Your task to perform on an android device: What's the weather today? Image 0: 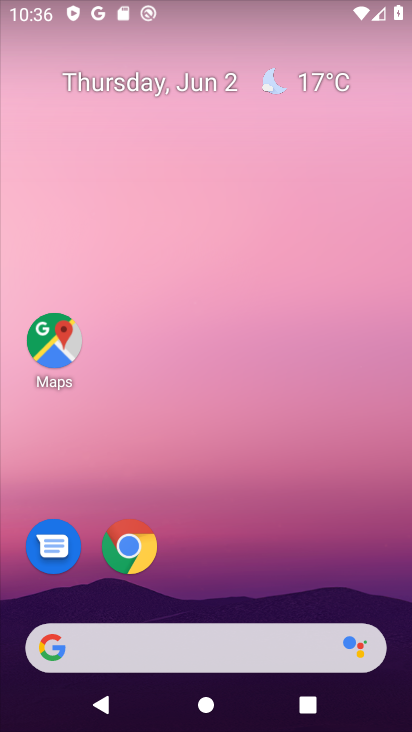
Step 0: drag from (233, 512) to (150, 31)
Your task to perform on an android device: What's the weather today? Image 1: 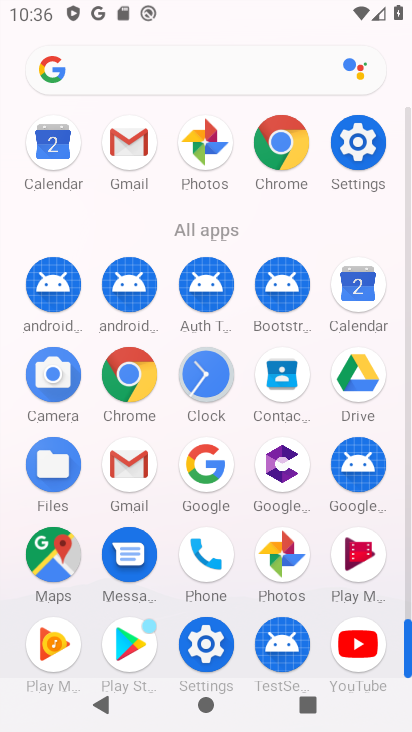
Step 1: click (279, 139)
Your task to perform on an android device: What's the weather today? Image 2: 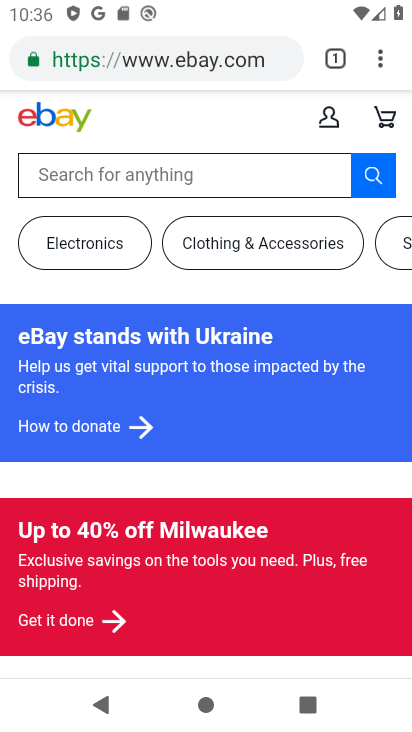
Step 2: click (218, 56)
Your task to perform on an android device: What's the weather today? Image 3: 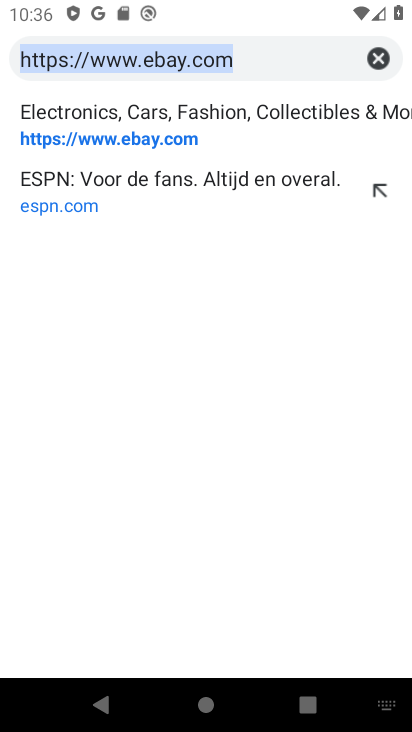
Step 3: click (373, 57)
Your task to perform on an android device: What's the weather today? Image 4: 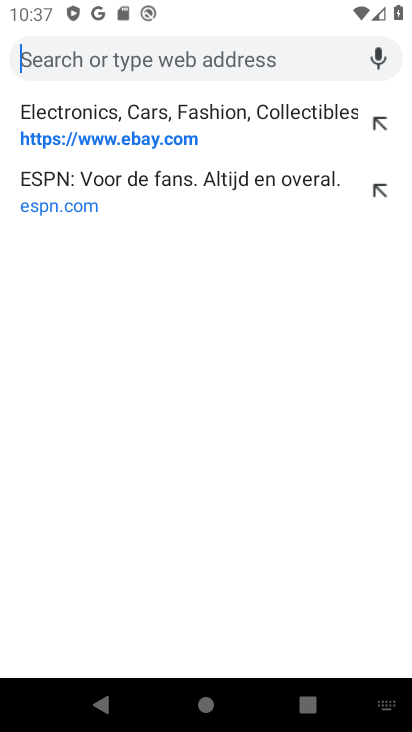
Step 4: type "What's the weather today?"
Your task to perform on an android device: What's the weather today? Image 5: 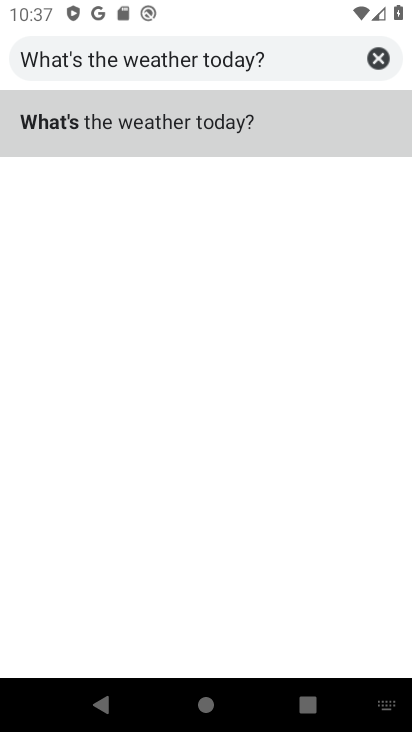
Step 5: click (144, 129)
Your task to perform on an android device: What's the weather today? Image 6: 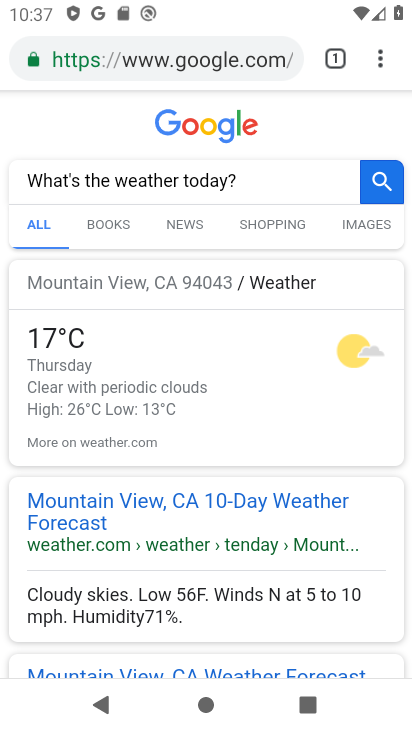
Step 6: task complete